Your task to perform on an android device: find which apps use the phone's location Image 0: 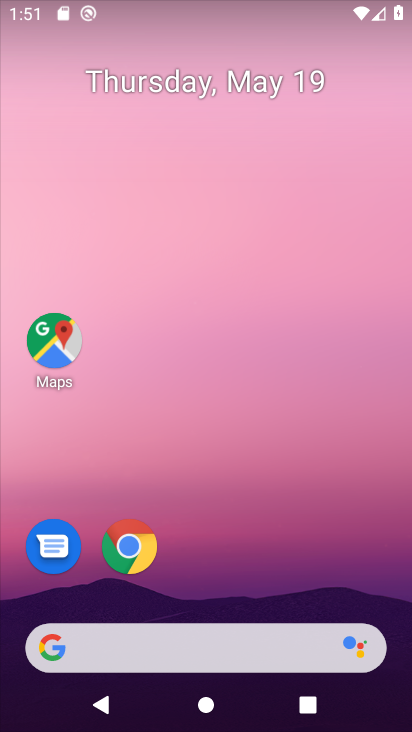
Step 0: drag from (214, 606) to (237, 1)
Your task to perform on an android device: find which apps use the phone's location Image 1: 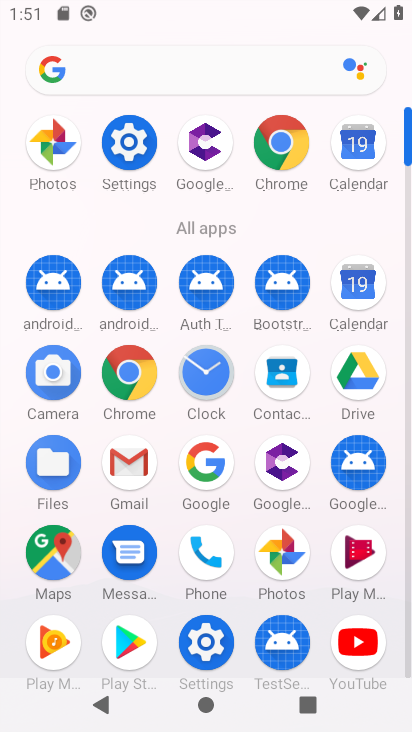
Step 1: click (128, 135)
Your task to perform on an android device: find which apps use the phone's location Image 2: 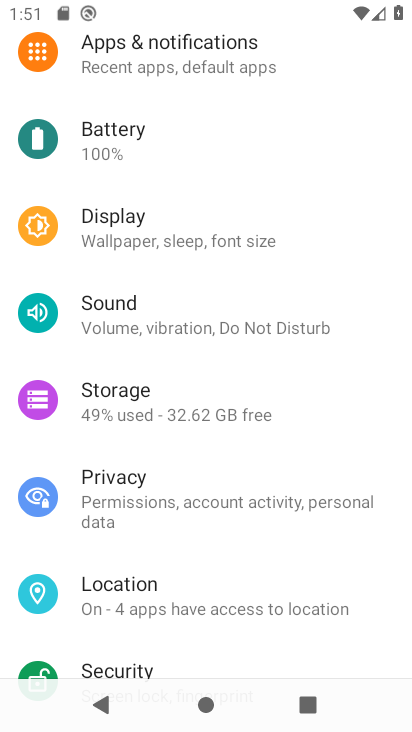
Step 2: click (177, 591)
Your task to perform on an android device: find which apps use the phone's location Image 3: 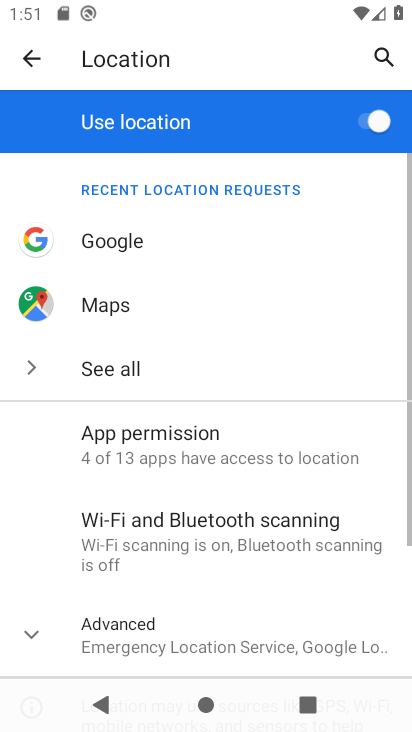
Step 3: click (176, 444)
Your task to perform on an android device: find which apps use the phone's location Image 4: 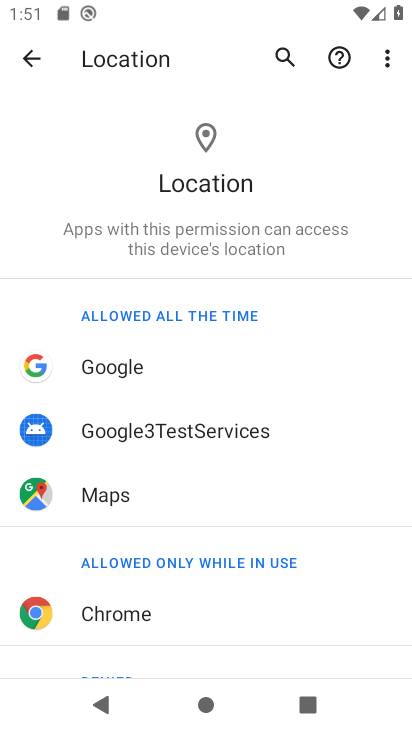
Step 4: task complete